Your task to perform on an android device: Go to accessibility settings Image 0: 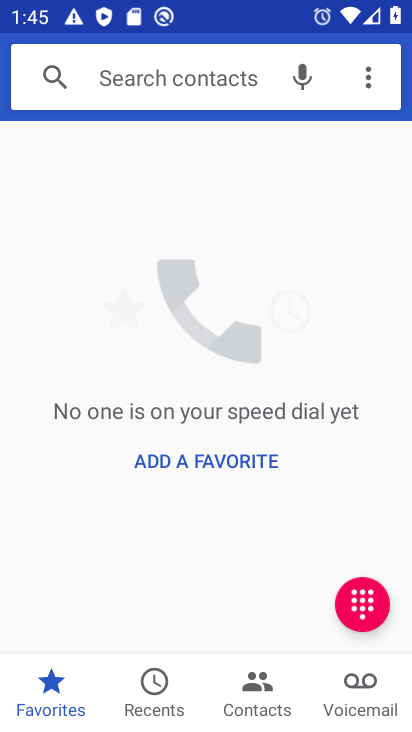
Step 0: press home button
Your task to perform on an android device: Go to accessibility settings Image 1: 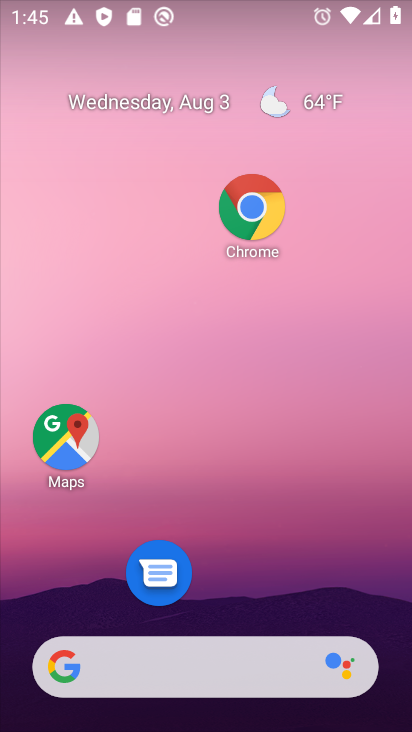
Step 1: drag from (143, 572) to (226, 37)
Your task to perform on an android device: Go to accessibility settings Image 2: 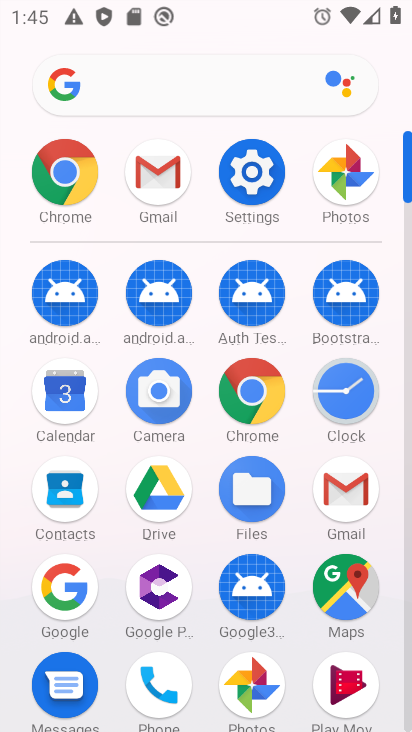
Step 2: click (261, 156)
Your task to perform on an android device: Go to accessibility settings Image 3: 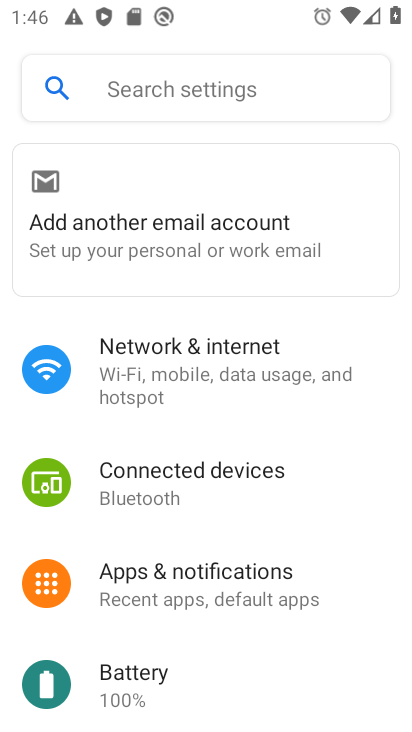
Step 3: drag from (196, 556) to (88, 204)
Your task to perform on an android device: Go to accessibility settings Image 4: 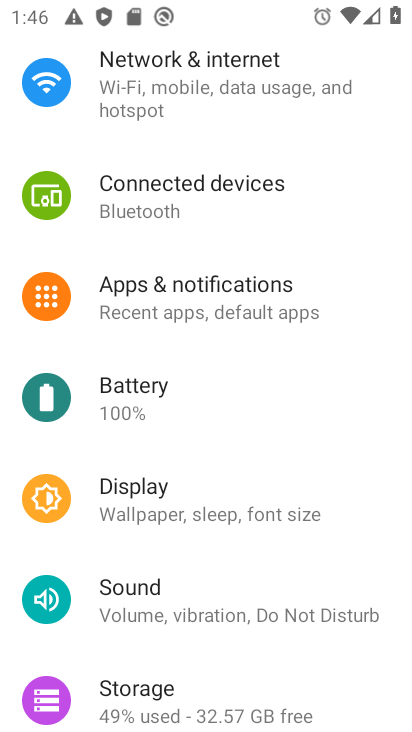
Step 4: drag from (174, 513) to (246, 205)
Your task to perform on an android device: Go to accessibility settings Image 5: 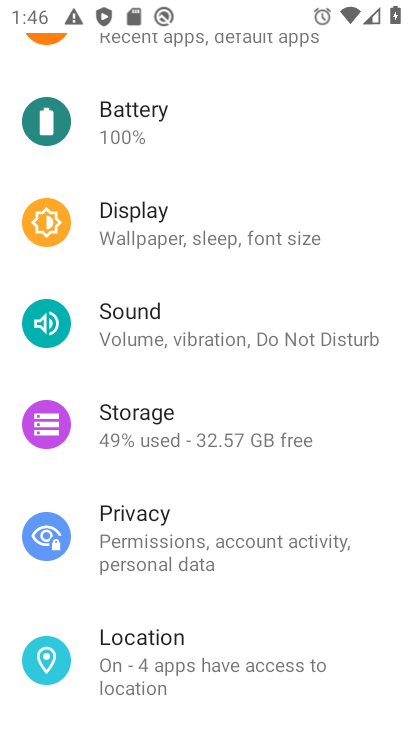
Step 5: drag from (181, 585) to (206, 276)
Your task to perform on an android device: Go to accessibility settings Image 6: 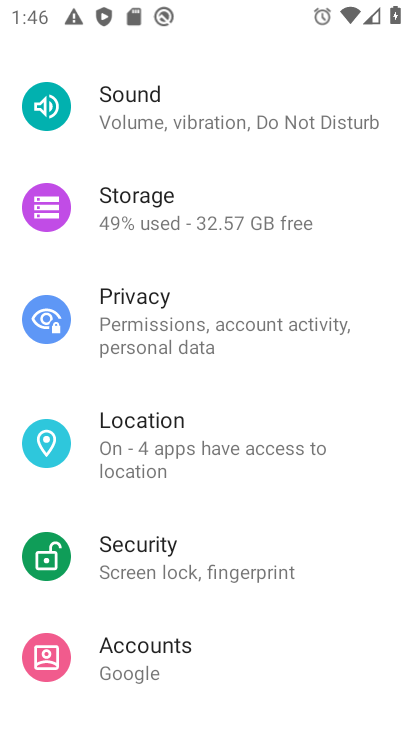
Step 6: drag from (151, 539) to (152, 267)
Your task to perform on an android device: Go to accessibility settings Image 7: 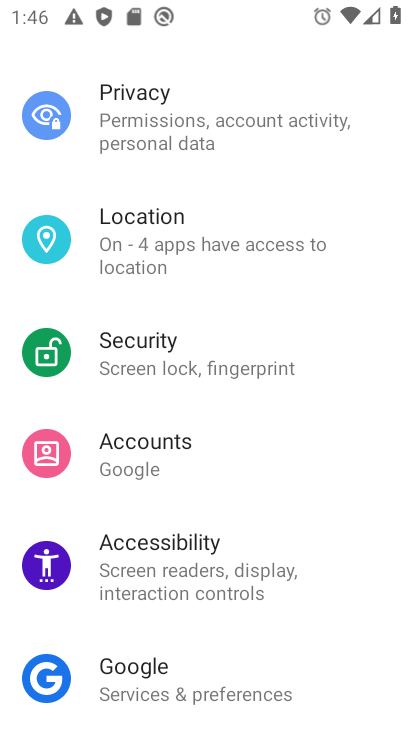
Step 7: drag from (171, 526) to (231, 285)
Your task to perform on an android device: Go to accessibility settings Image 8: 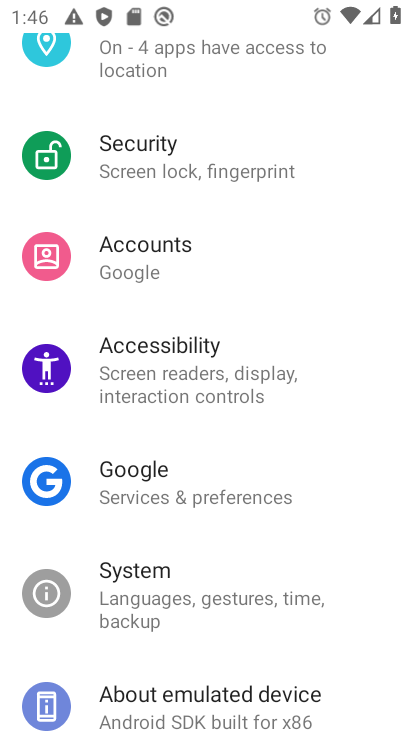
Step 8: click (190, 386)
Your task to perform on an android device: Go to accessibility settings Image 9: 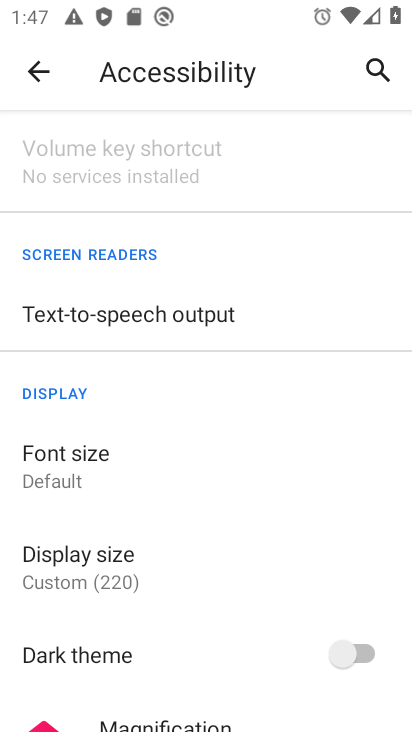
Step 9: task complete